Your task to perform on an android device: What's a good restaurant in Dallas? Image 0: 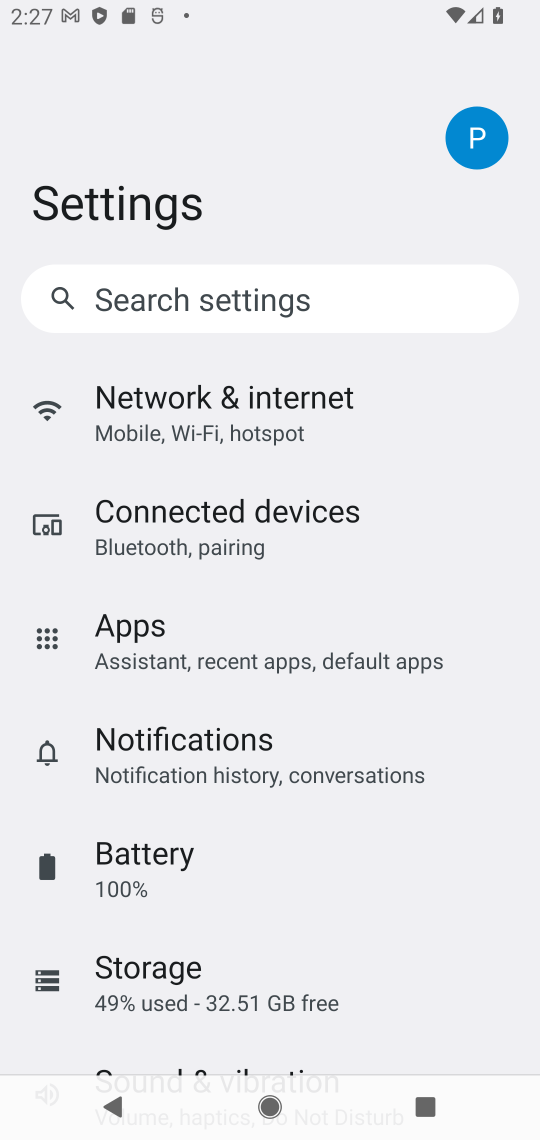
Step 0: press home button
Your task to perform on an android device: What's a good restaurant in Dallas? Image 1: 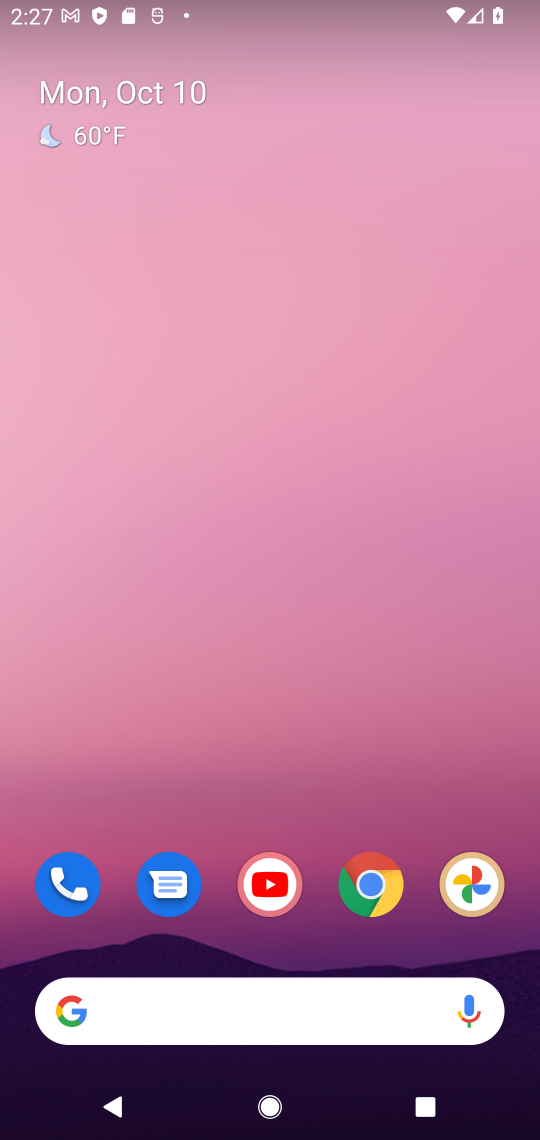
Step 1: click (370, 895)
Your task to perform on an android device: What's a good restaurant in Dallas? Image 2: 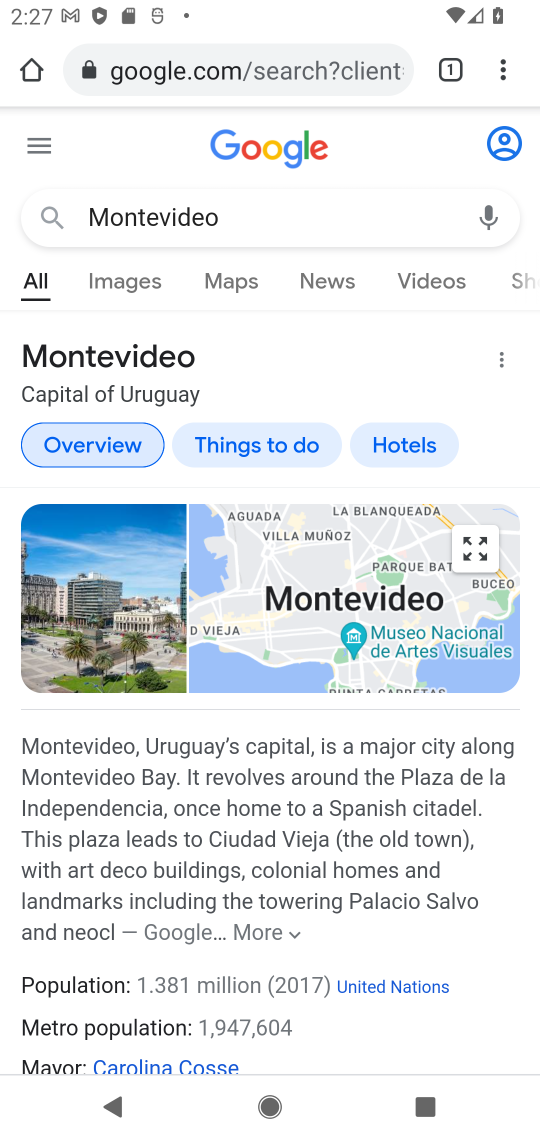
Step 2: click (241, 224)
Your task to perform on an android device: What's a good restaurant in Dallas? Image 3: 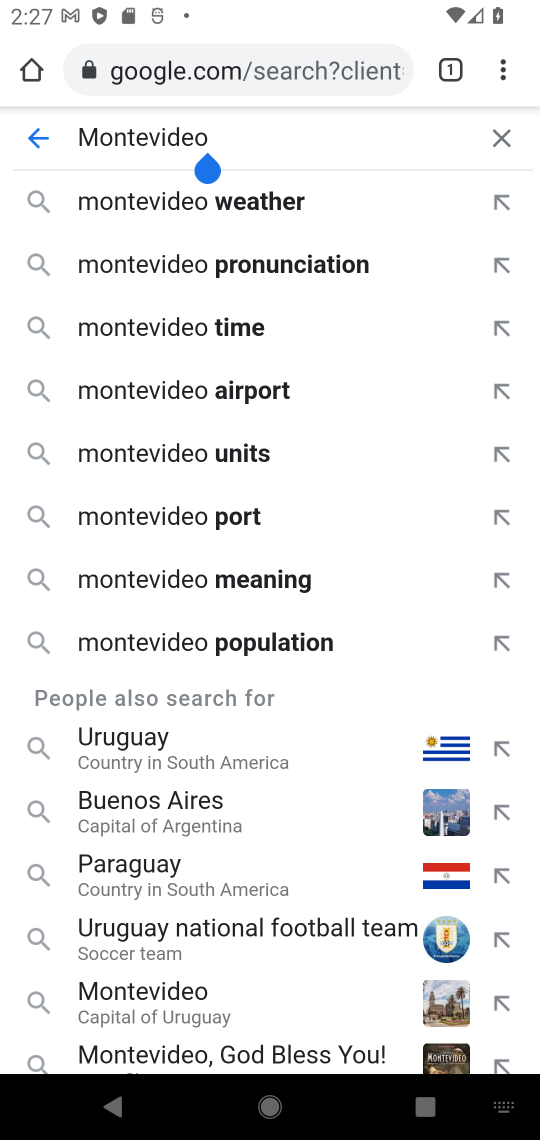
Step 3: click (502, 144)
Your task to perform on an android device: What's a good restaurant in Dallas? Image 4: 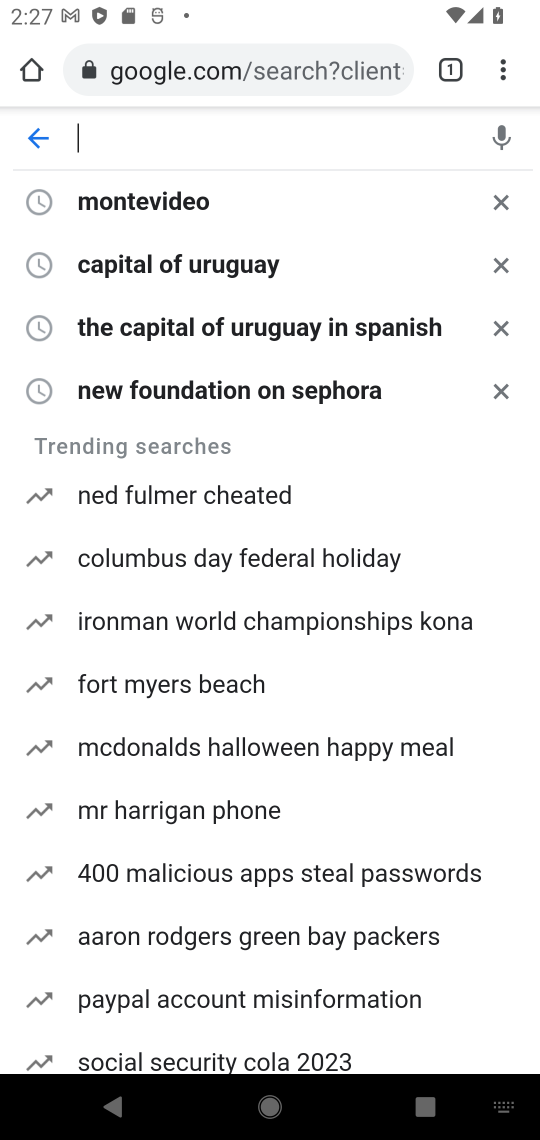
Step 4: type "a good restaurant in Dallas"
Your task to perform on an android device: What's a good restaurant in Dallas? Image 5: 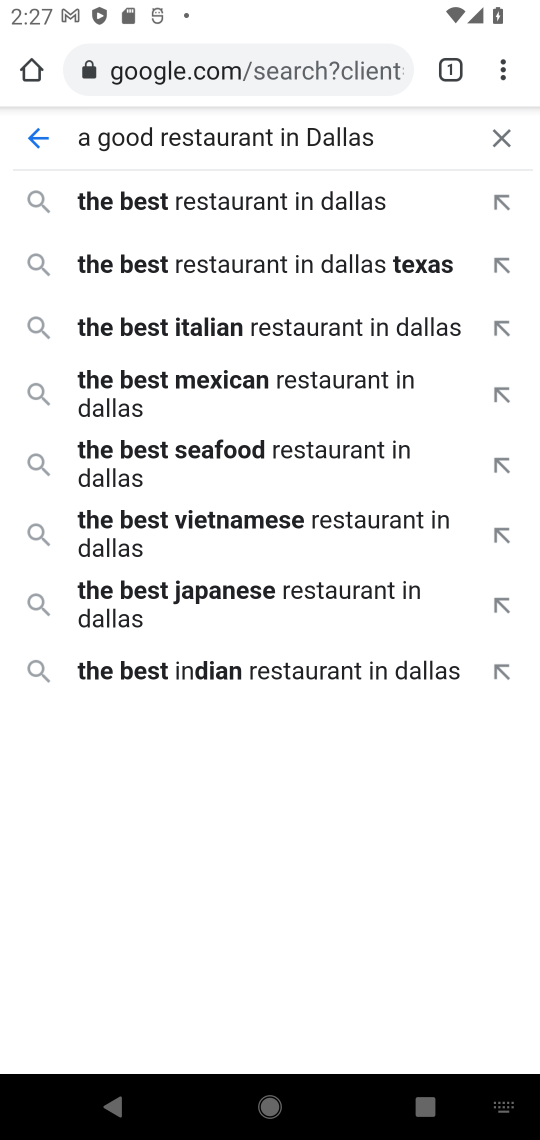
Step 5: click (266, 198)
Your task to perform on an android device: What's a good restaurant in Dallas? Image 6: 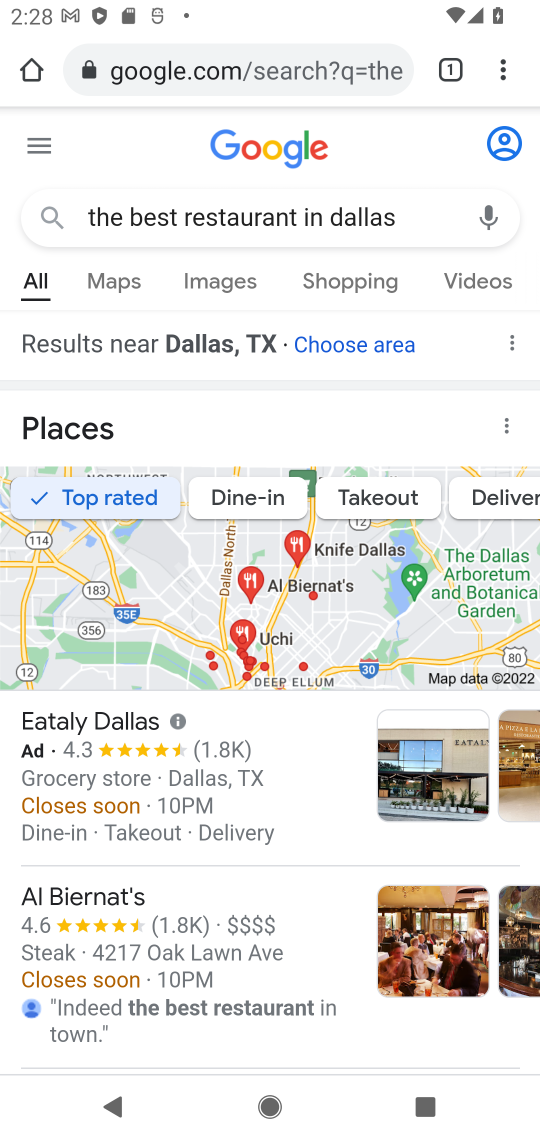
Step 6: click (106, 849)
Your task to perform on an android device: What's a good restaurant in Dallas? Image 7: 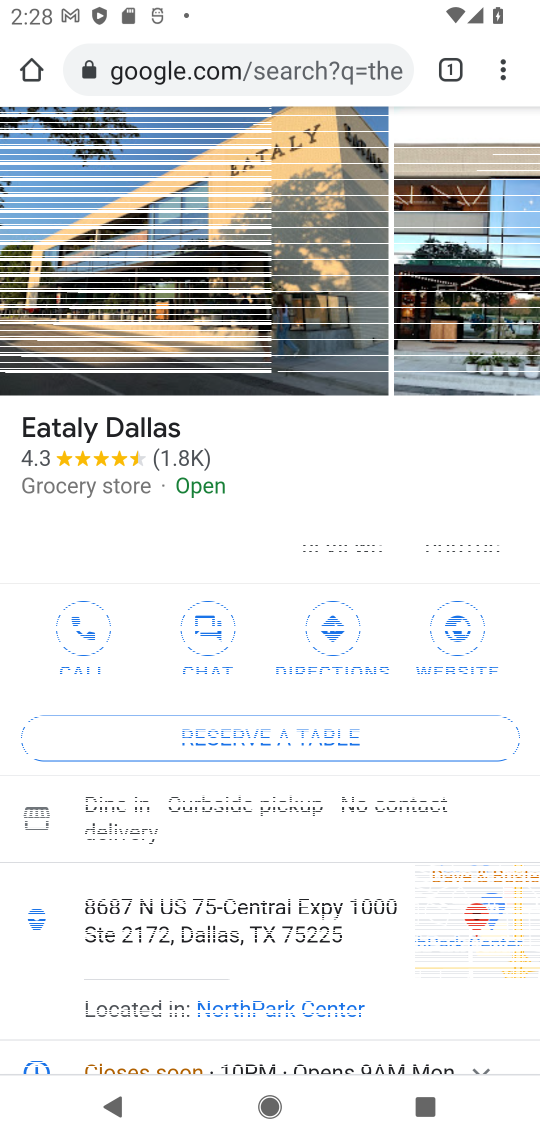
Step 7: task complete